Your task to perform on an android device: Toggle the flashlight Image 0: 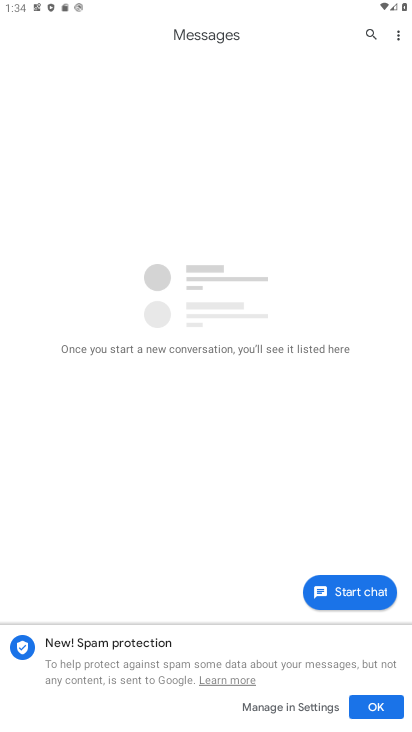
Step 0: press home button
Your task to perform on an android device: Toggle the flashlight Image 1: 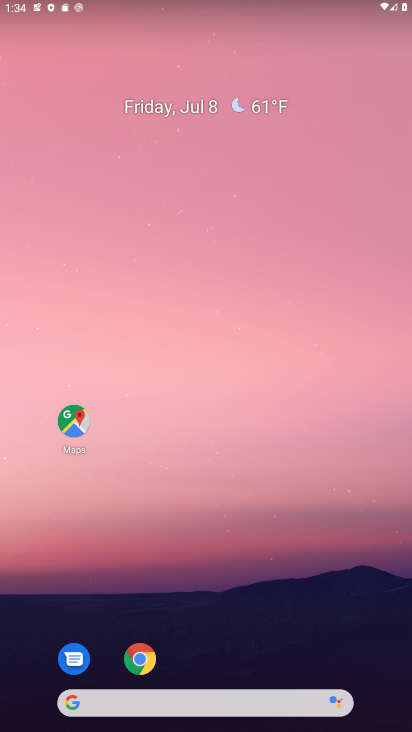
Step 1: drag from (202, 669) to (178, 179)
Your task to perform on an android device: Toggle the flashlight Image 2: 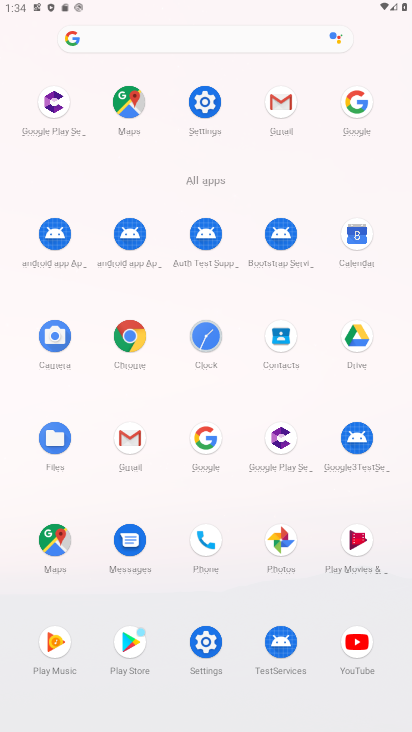
Step 2: click (214, 640)
Your task to perform on an android device: Toggle the flashlight Image 3: 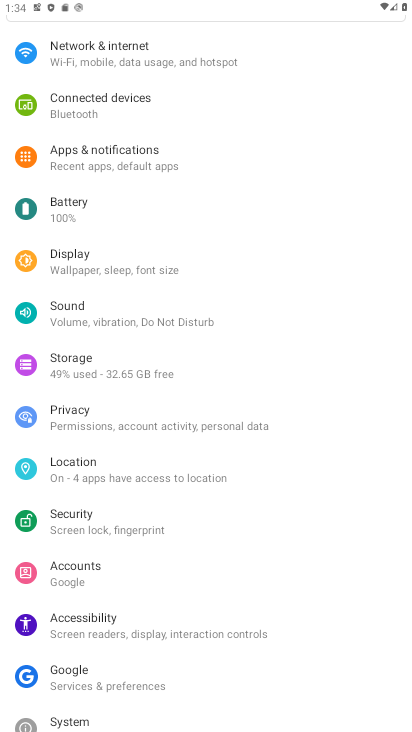
Step 3: task complete